Your task to perform on an android device: set the stopwatch Image 0: 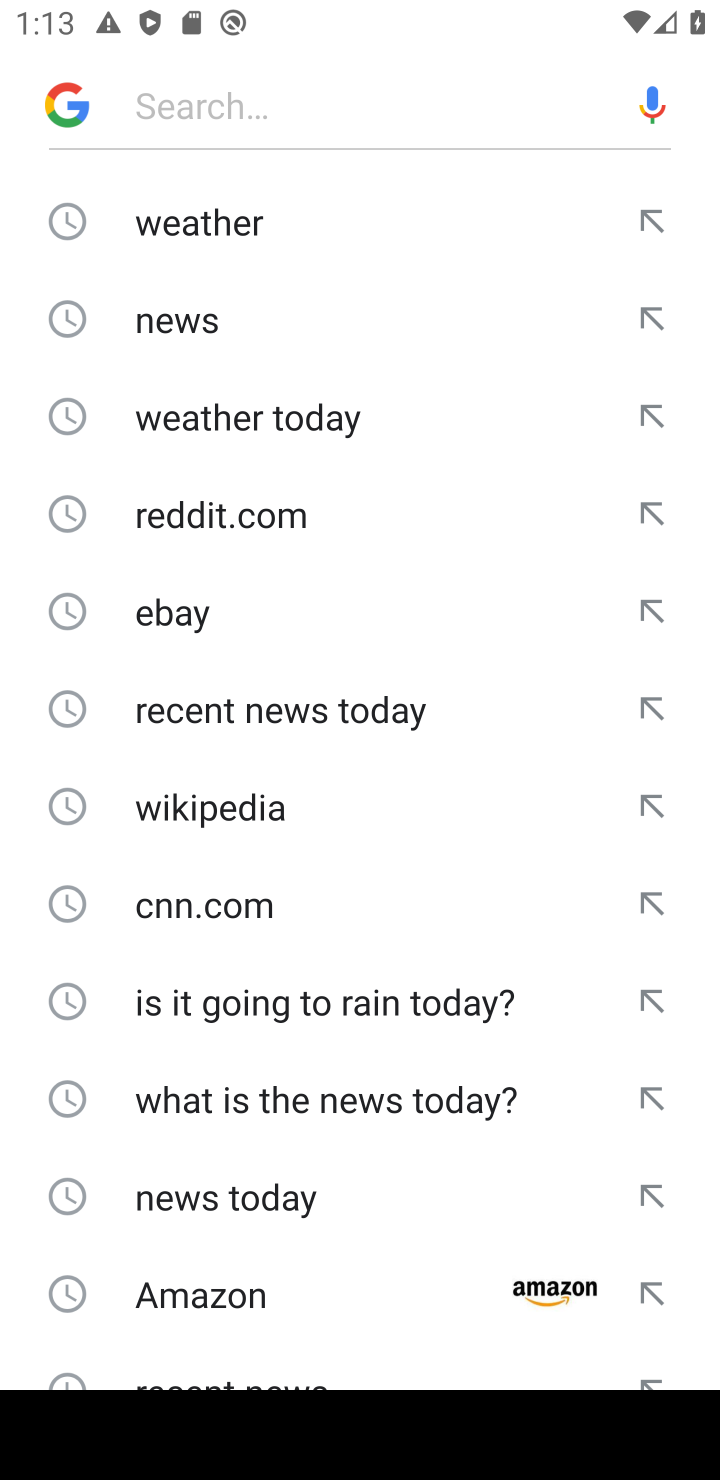
Step 0: task complete